Your task to perform on an android device: find which apps use the phone's location Image 0: 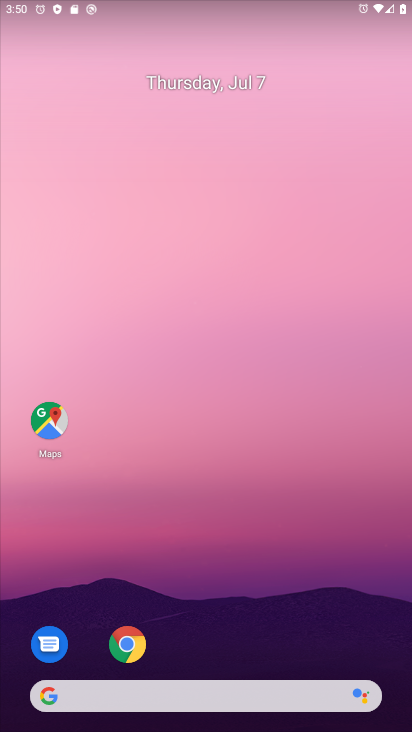
Step 0: drag from (285, 635) to (287, 1)
Your task to perform on an android device: find which apps use the phone's location Image 1: 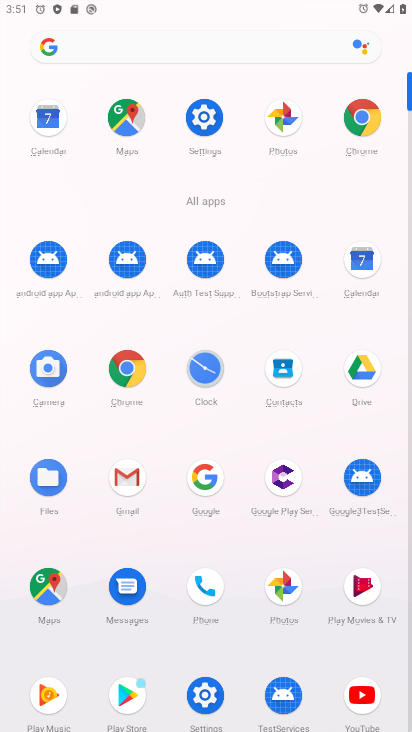
Step 1: click (198, 591)
Your task to perform on an android device: find which apps use the phone's location Image 2: 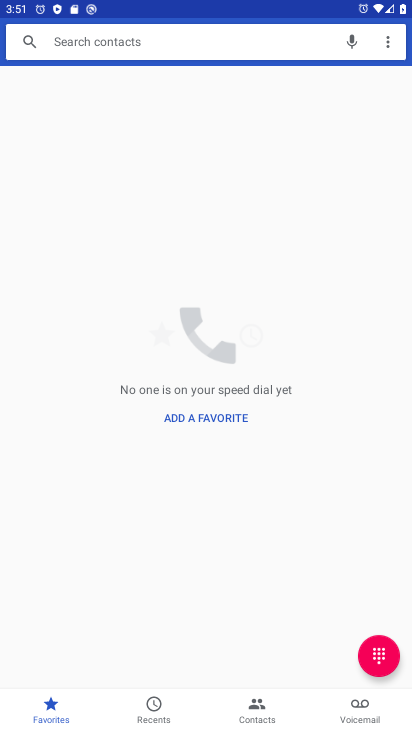
Step 2: press back button
Your task to perform on an android device: find which apps use the phone's location Image 3: 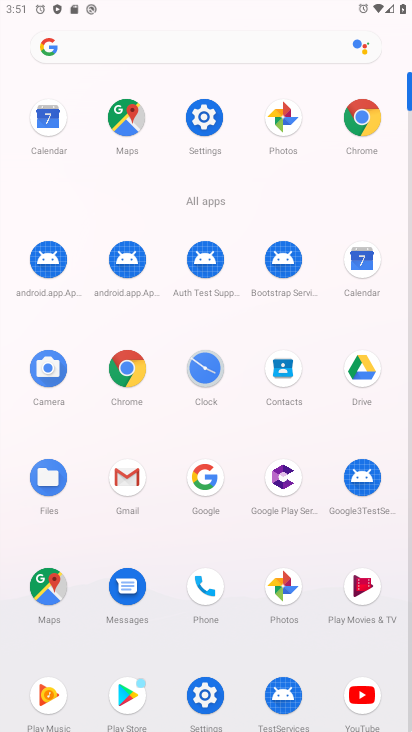
Step 3: click (188, 588)
Your task to perform on an android device: find which apps use the phone's location Image 4: 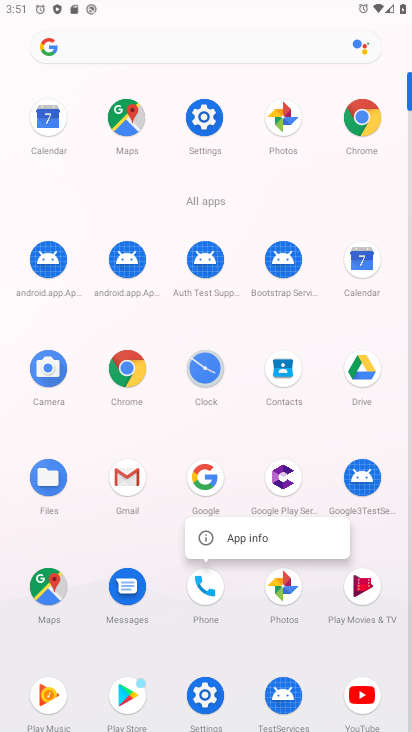
Step 4: click (255, 540)
Your task to perform on an android device: find which apps use the phone's location Image 5: 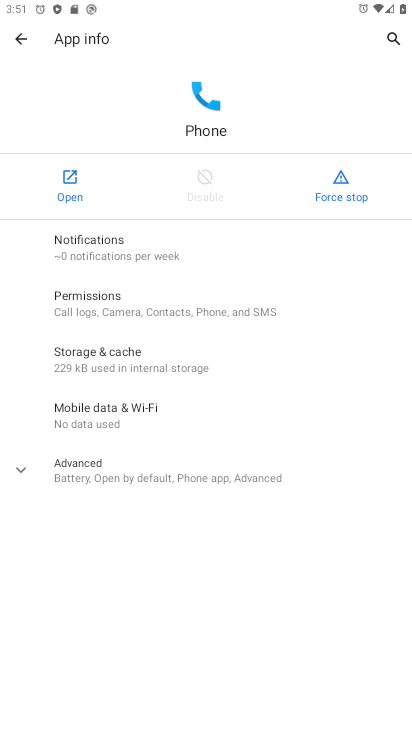
Step 5: click (42, 469)
Your task to perform on an android device: find which apps use the phone's location Image 6: 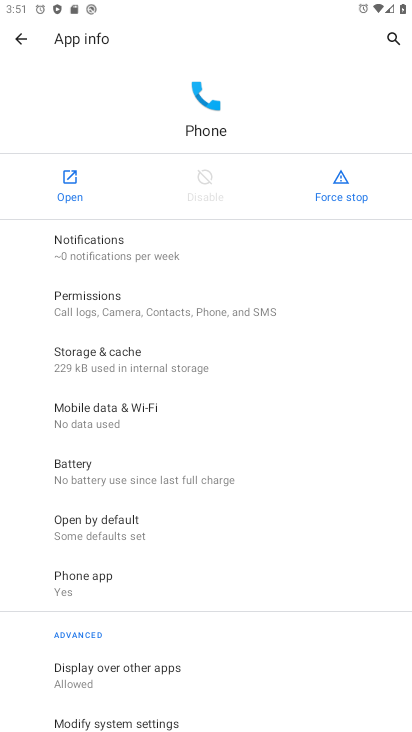
Step 6: click (92, 293)
Your task to perform on an android device: find which apps use the phone's location Image 7: 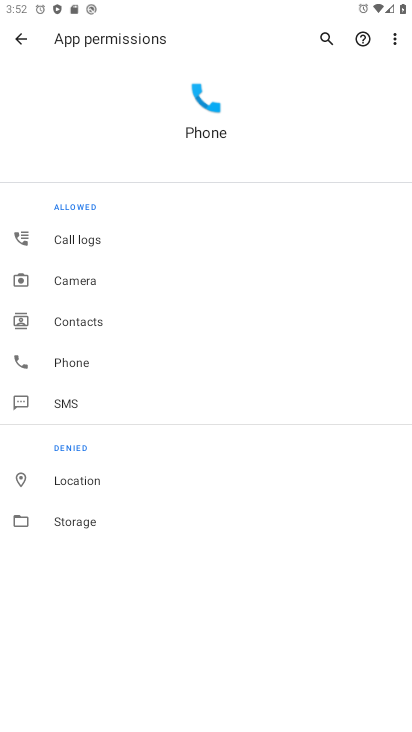
Step 7: click (43, 481)
Your task to perform on an android device: find which apps use the phone's location Image 8: 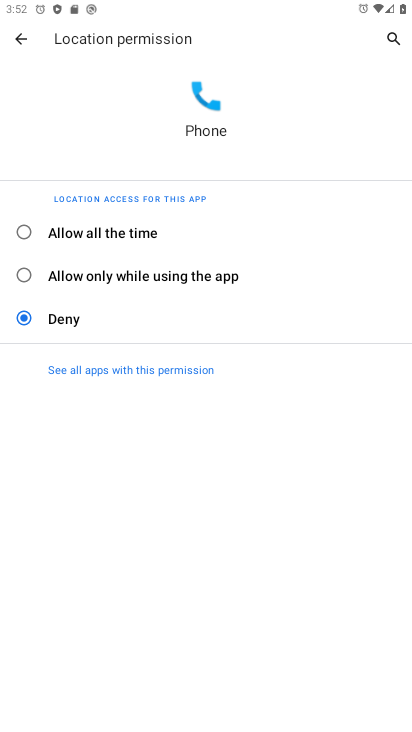
Step 8: click (155, 382)
Your task to perform on an android device: find which apps use the phone's location Image 9: 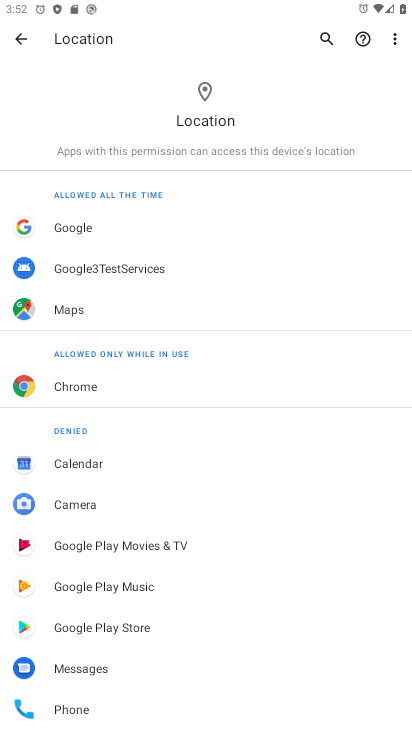
Step 9: task complete